Your task to perform on an android device: Go to Android settings Image 0: 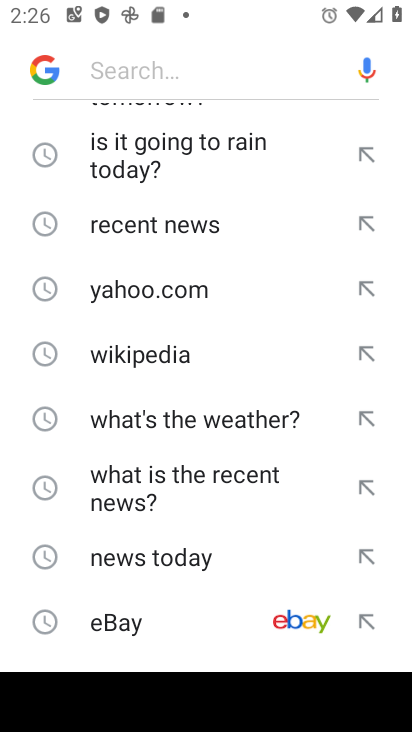
Step 0: press home button
Your task to perform on an android device: Go to Android settings Image 1: 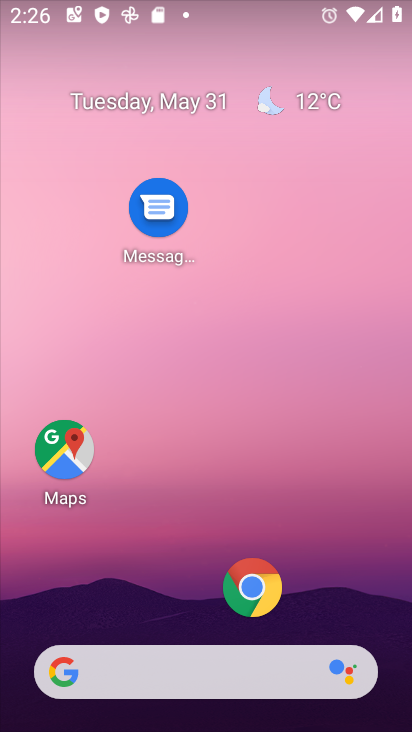
Step 1: drag from (217, 479) to (85, 55)
Your task to perform on an android device: Go to Android settings Image 2: 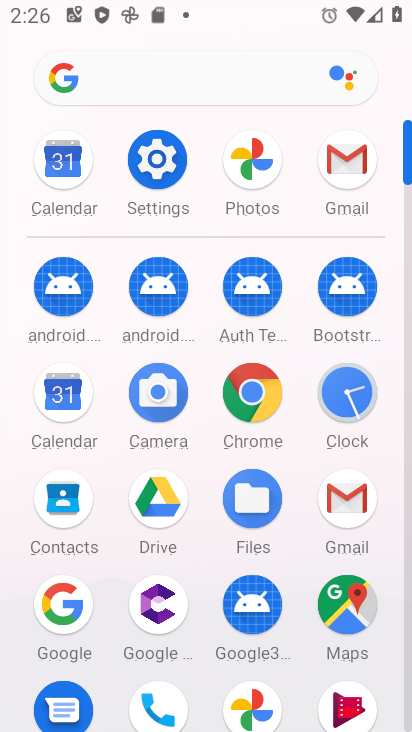
Step 2: click (133, 138)
Your task to perform on an android device: Go to Android settings Image 3: 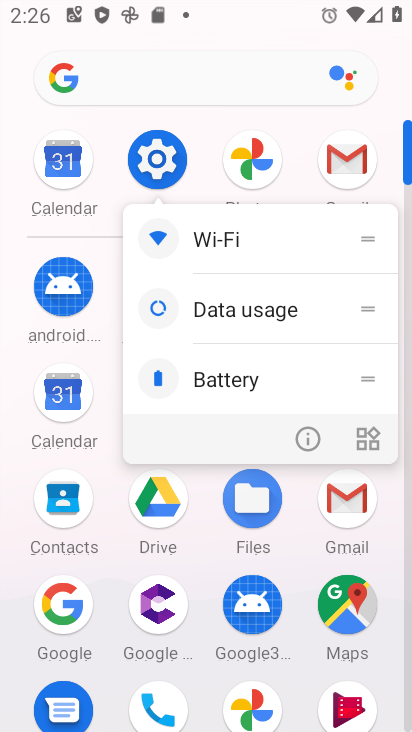
Step 3: click (302, 439)
Your task to perform on an android device: Go to Android settings Image 4: 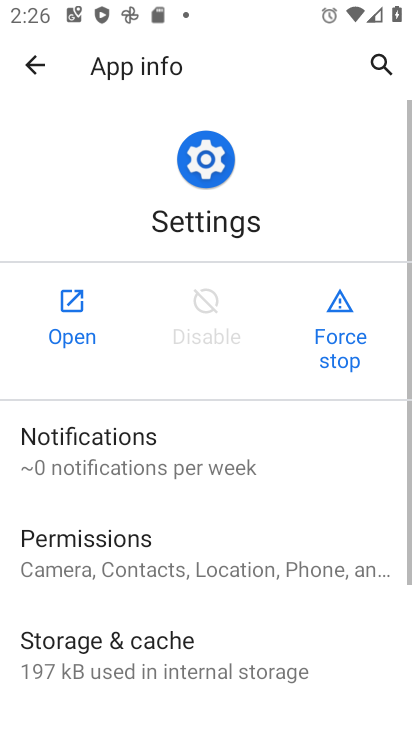
Step 4: click (72, 290)
Your task to perform on an android device: Go to Android settings Image 5: 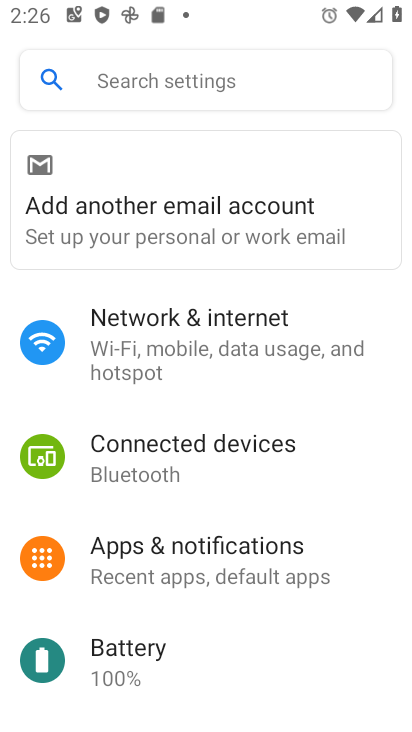
Step 5: drag from (256, 661) to (86, 0)
Your task to perform on an android device: Go to Android settings Image 6: 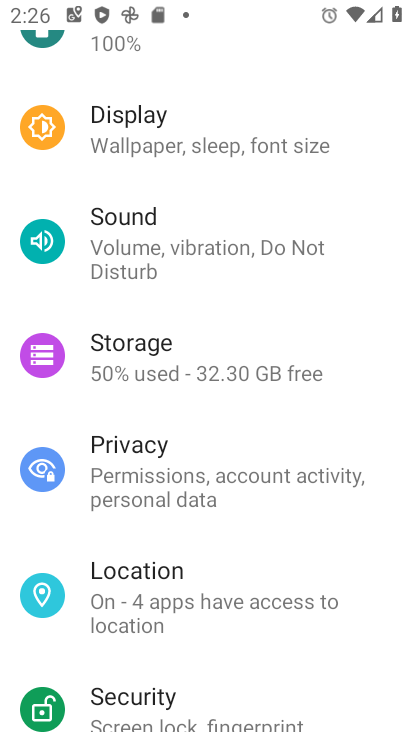
Step 6: drag from (218, 628) to (125, 26)
Your task to perform on an android device: Go to Android settings Image 7: 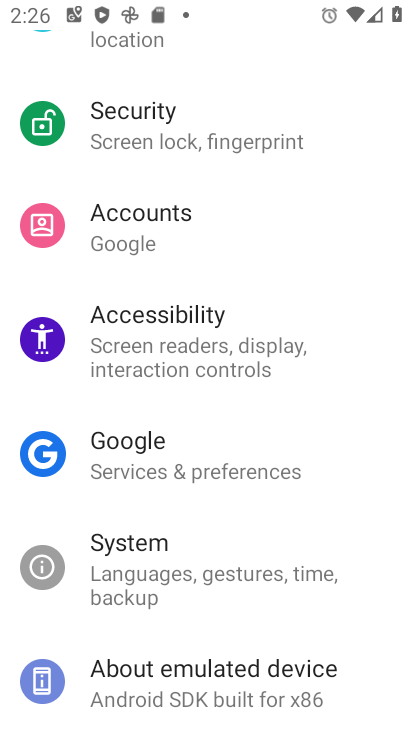
Step 7: click (289, 656)
Your task to perform on an android device: Go to Android settings Image 8: 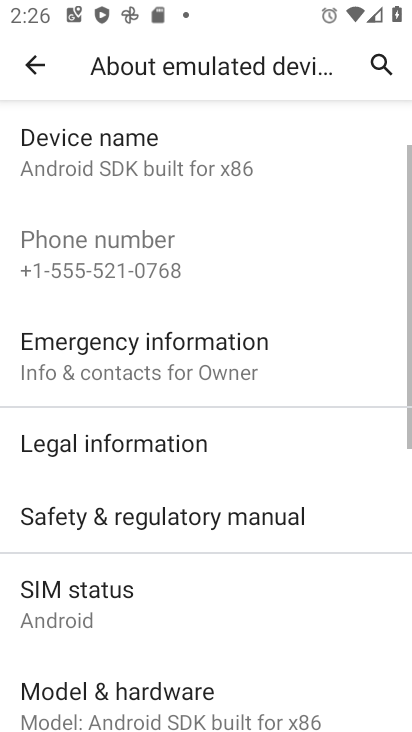
Step 8: drag from (153, 548) to (125, 172)
Your task to perform on an android device: Go to Android settings Image 9: 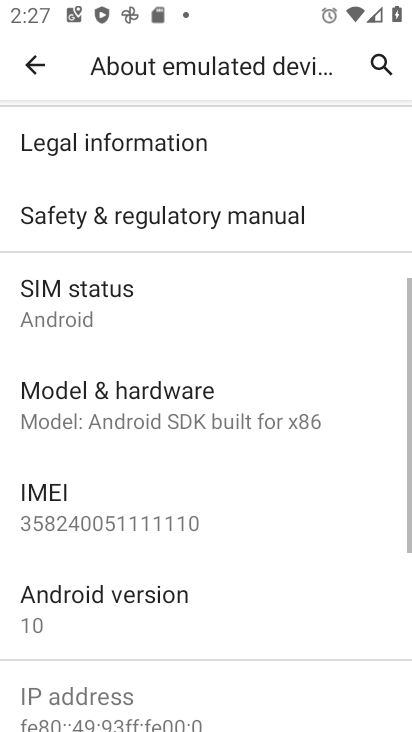
Step 9: click (174, 603)
Your task to perform on an android device: Go to Android settings Image 10: 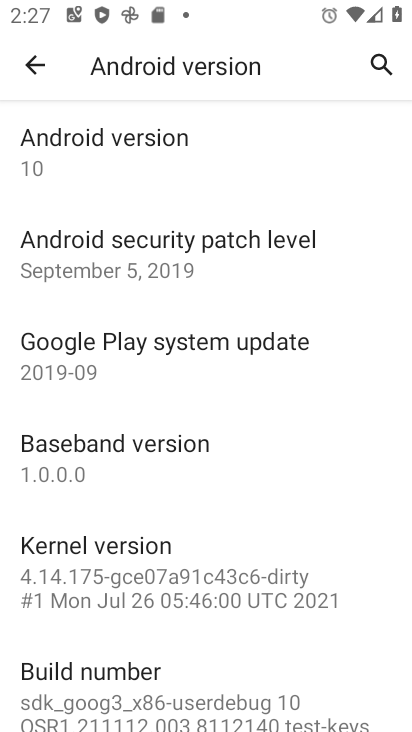
Step 10: task complete